Your task to perform on an android device: turn off wifi Image 0: 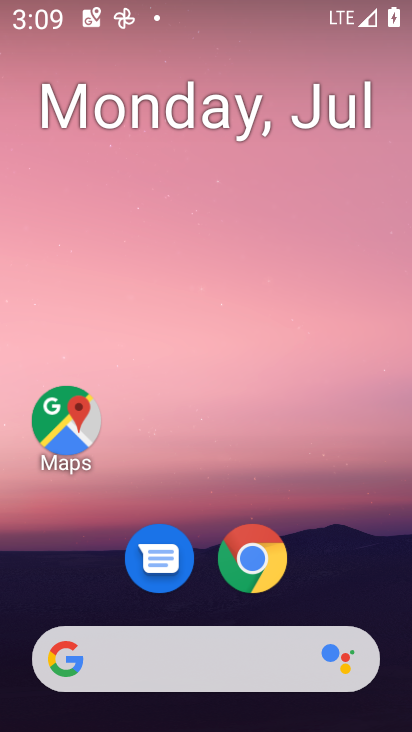
Step 0: press home button
Your task to perform on an android device: turn off wifi Image 1: 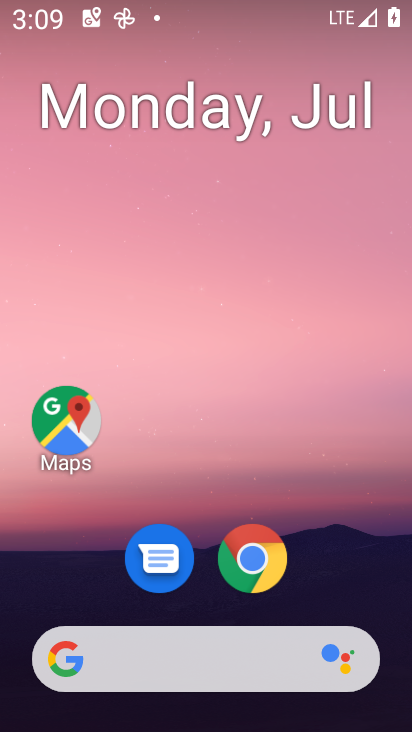
Step 1: drag from (356, 591) to (345, 78)
Your task to perform on an android device: turn off wifi Image 2: 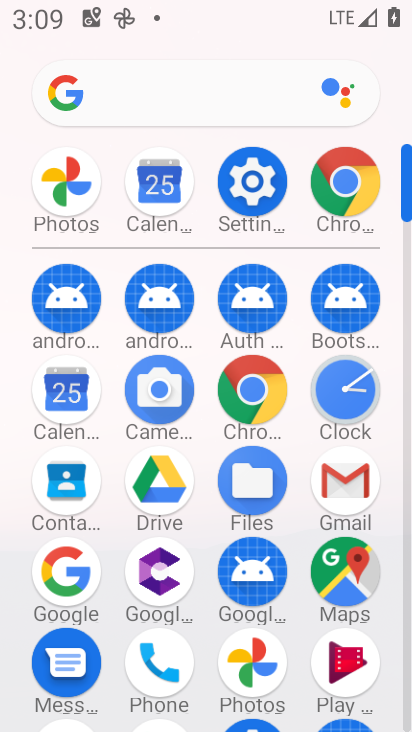
Step 2: click (260, 192)
Your task to perform on an android device: turn off wifi Image 3: 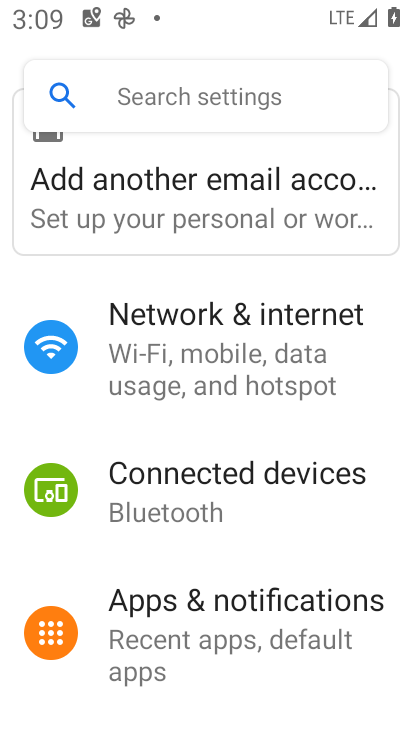
Step 3: drag from (344, 530) to (352, 355)
Your task to perform on an android device: turn off wifi Image 4: 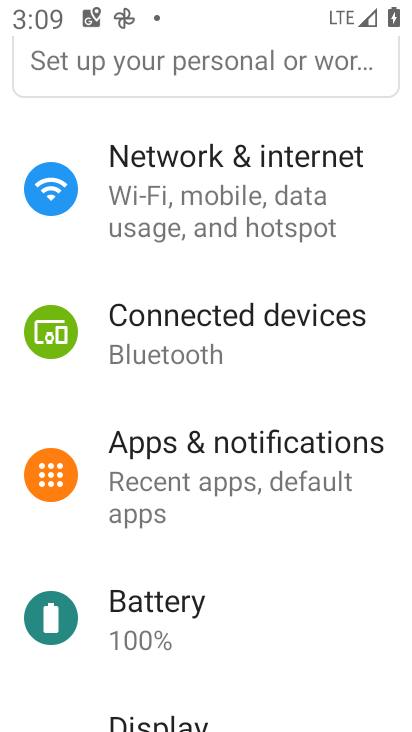
Step 4: drag from (333, 581) to (334, 337)
Your task to perform on an android device: turn off wifi Image 5: 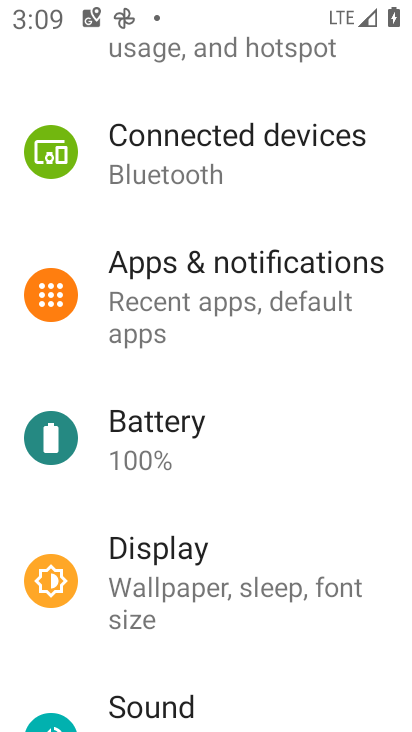
Step 5: drag from (342, 519) to (344, 313)
Your task to perform on an android device: turn off wifi Image 6: 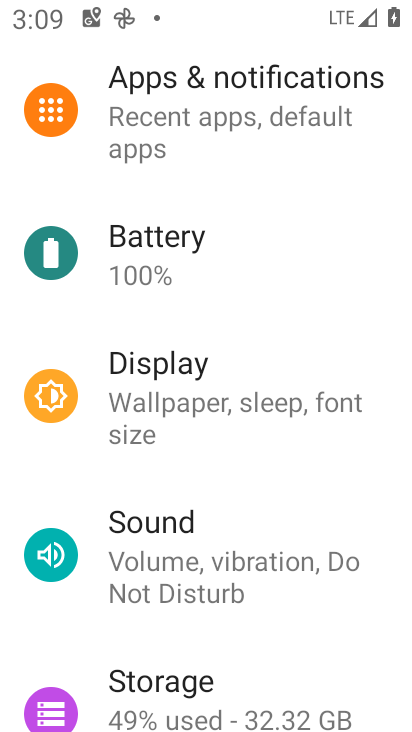
Step 6: drag from (357, 625) to (362, 394)
Your task to perform on an android device: turn off wifi Image 7: 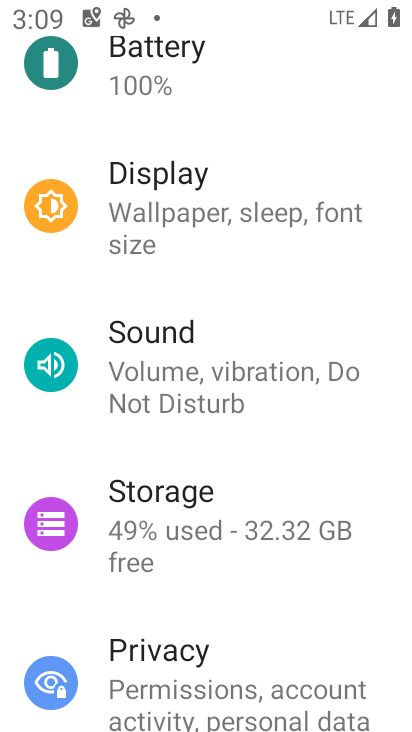
Step 7: drag from (350, 617) to (341, 423)
Your task to perform on an android device: turn off wifi Image 8: 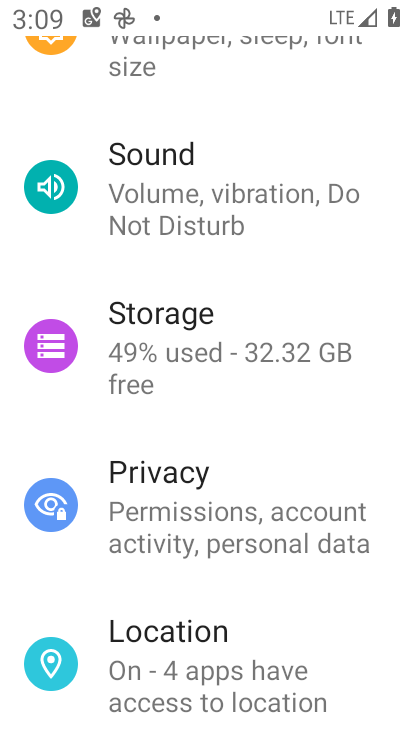
Step 8: drag from (302, 646) to (299, 454)
Your task to perform on an android device: turn off wifi Image 9: 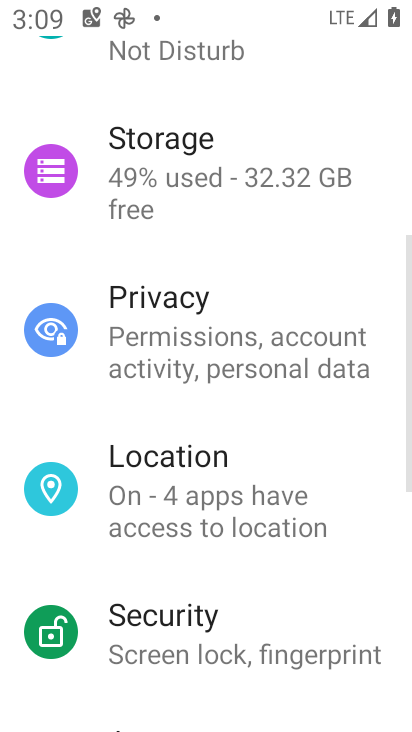
Step 9: drag from (315, 620) to (312, 442)
Your task to perform on an android device: turn off wifi Image 10: 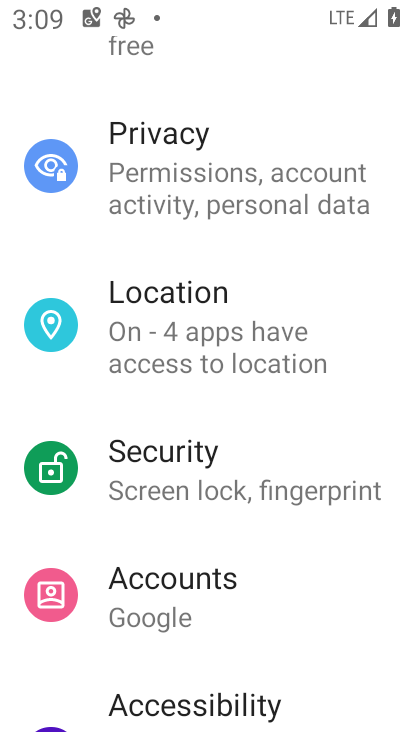
Step 10: drag from (315, 599) to (317, 409)
Your task to perform on an android device: turn off wifi Image 11: 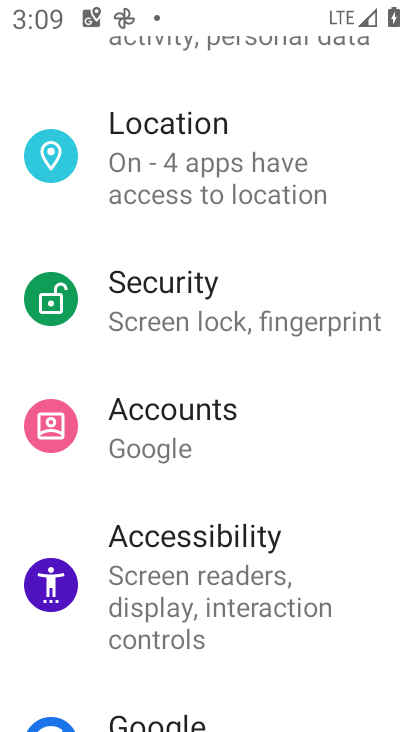
Step 11: drag from (365, 234) to (348, 403)
Your task to perform on an android device: turn off wifi Image 12: 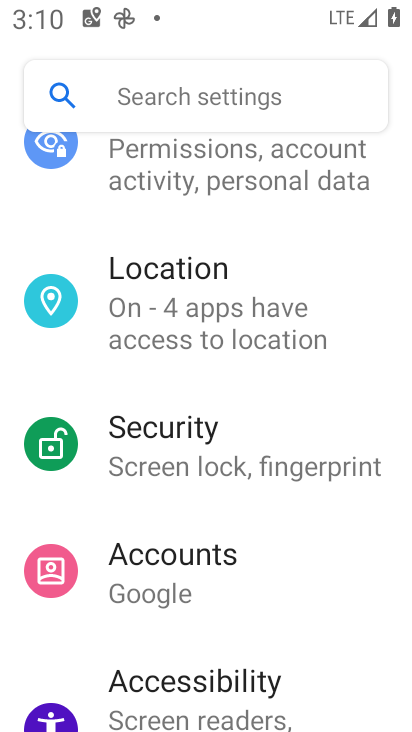
Step 12: drag from (357, 219) to (358, 430)
Your task to perform on an android device: turn off wifi Image 13: 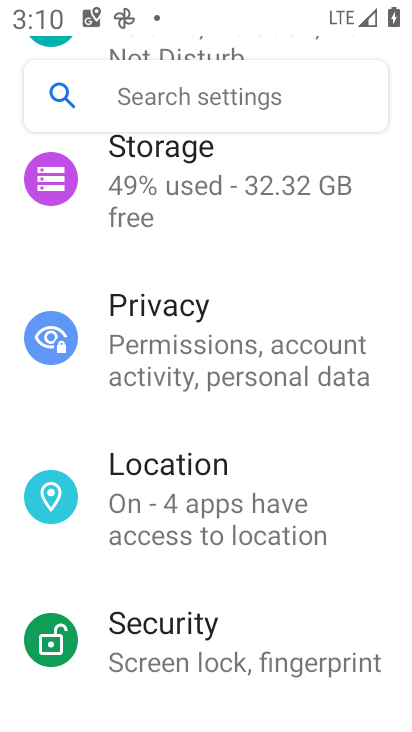
Step 13: drag from (367, 160) to (357, 425)
Your task to perform on an android device: turn off wifi Image 14: 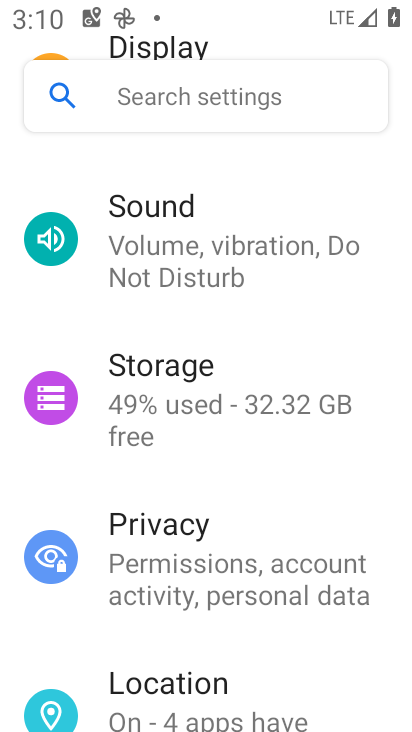
Step 14: drag from (375, 167) to (375, 421)
Your task to perform on an android device: turn off wifi Image 15: 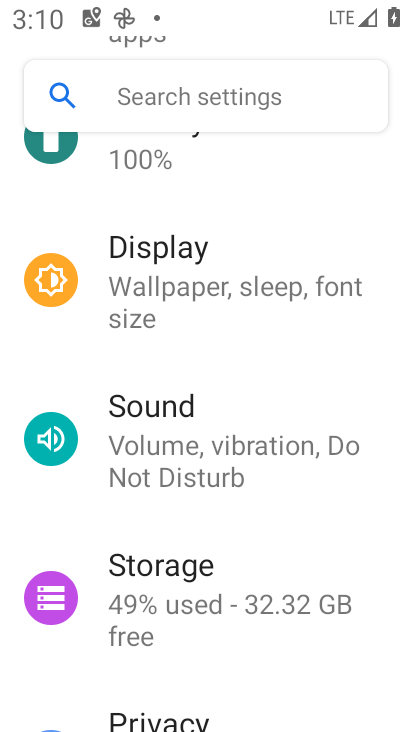
Step 15: drag from (365, 175) to (364, 394)
Your task to perform on an android device: turn off wifi Image 16: 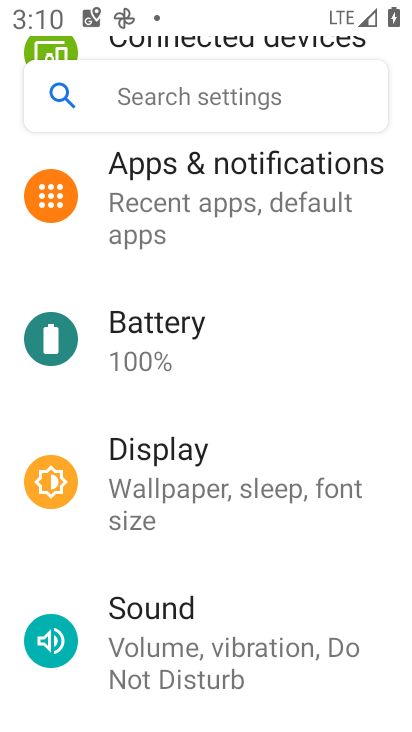
Step 16: drag from (374, 153) to (366, 410)
Your task to perform on an android device: turn off wifi Image 17: 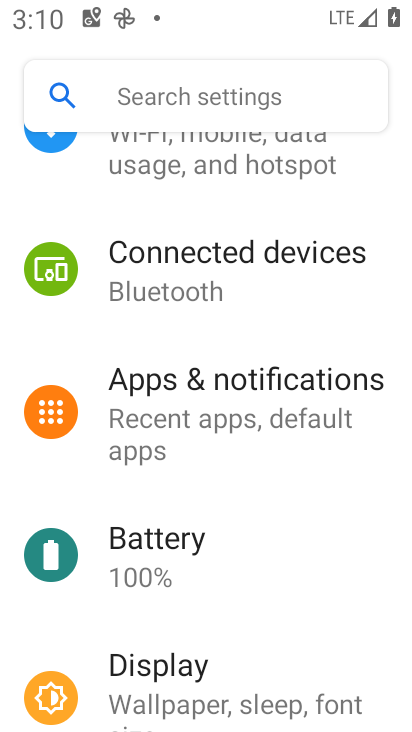
Step 17: drag from (353, 170) to (351, 408)
Your task to perform on an android device: turn off wifi Image 18: 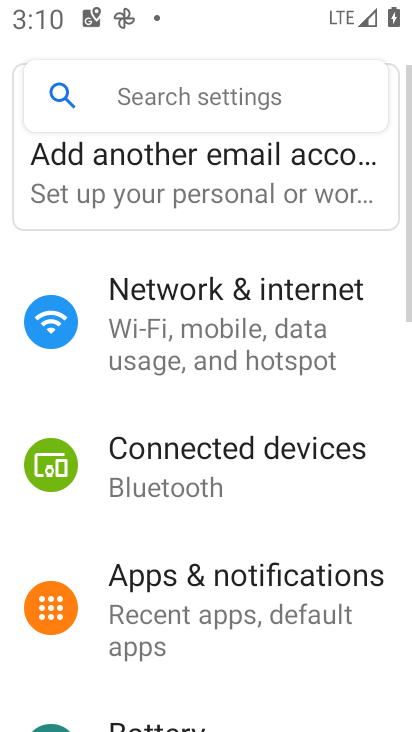
Step 18: click (240, 343)
Your task to perform on an android device: turn off wifi Image 19: 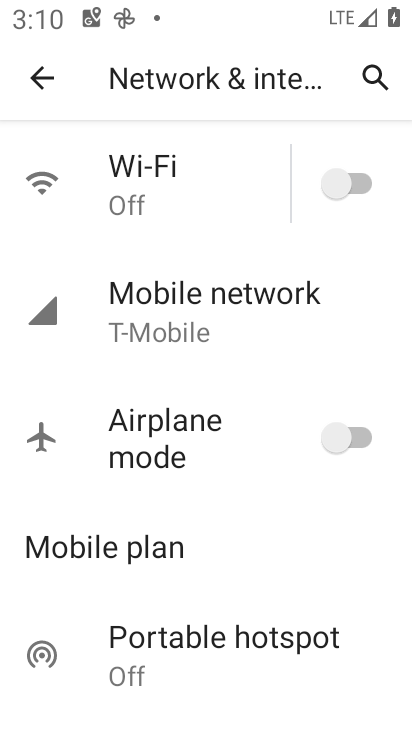
Step 19: task complete